Your task to perform on an android device: Open the calendar app, open the side menu, and click the "Day" option Image 0: 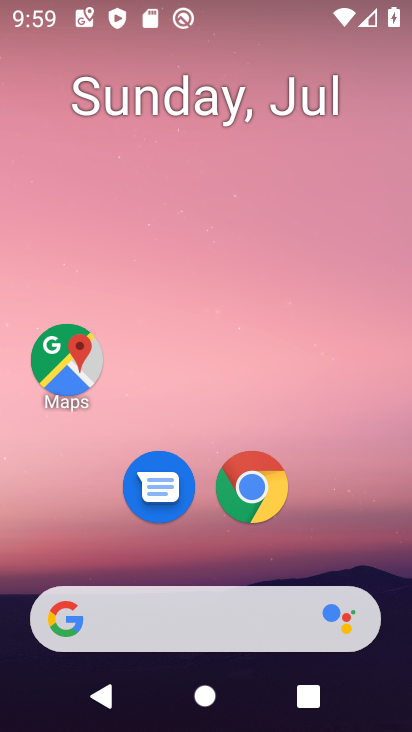
Step 0: drag from (162, 577) to (261, 4)
Your task to perform on an android device: Open the calendar app, open the side menu, and click the "Day" option Image 1: 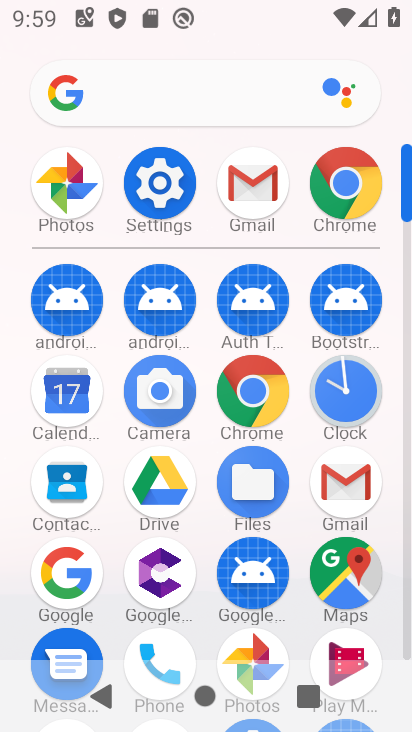
Step 1: click (77, 402)
Your task to perform on an android device: Open the calendar app, open the side menu, and click the "Day" option Image 2: 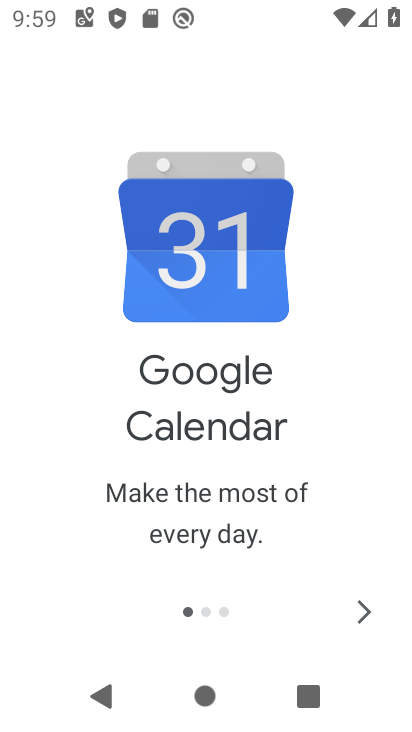
Step 2: click (364, 617)
Your task to perform on an android device: Open the calendar app, open the side menu, and click the "Day" option Image 3: 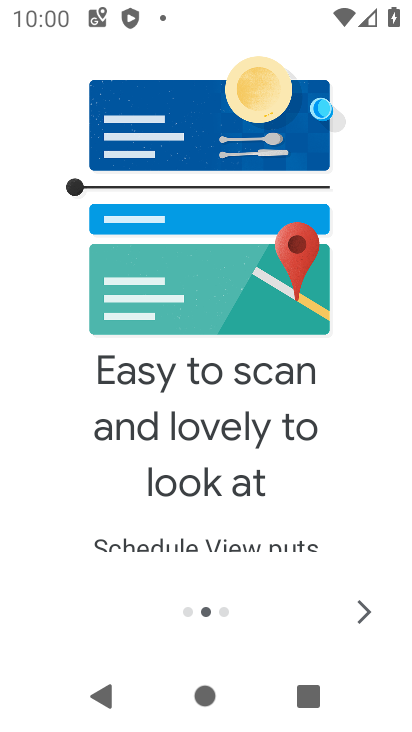
Step 3: click (376, 611)
Your task to perform on an android device: Open the calendar app, open the side menu, and click the "Day" option Image 4: 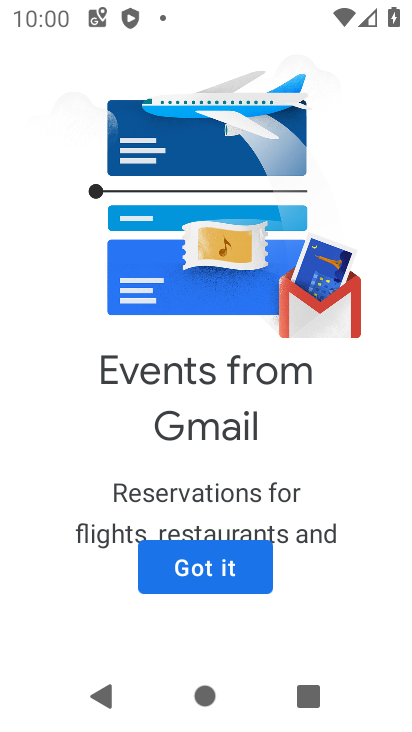
Step 4: click (203, 566)
Your task to perform on an android device: Open the calendar app, open the side menu, and click the "Day" option Image 5: 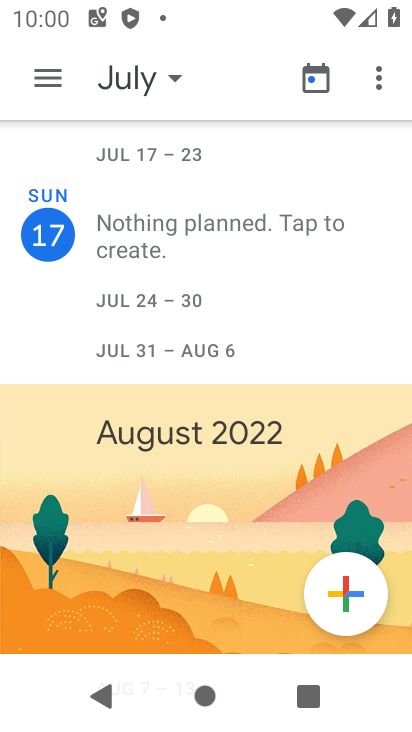
Step 5: click (49, 75)
Your task to perform on an android device: Open the calendar app, open the side menu, and click the "Day" option Image 6: 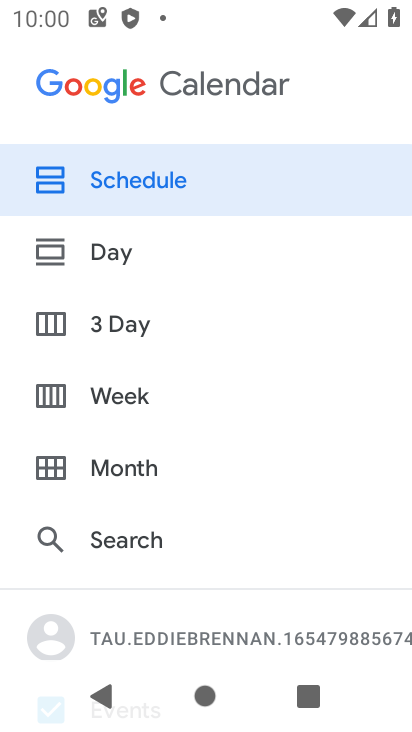
Step 6: click (108, 267)
Your task to perform on an android device: Open the calendar app, open the side menu, and click the "Day" option Image 7: 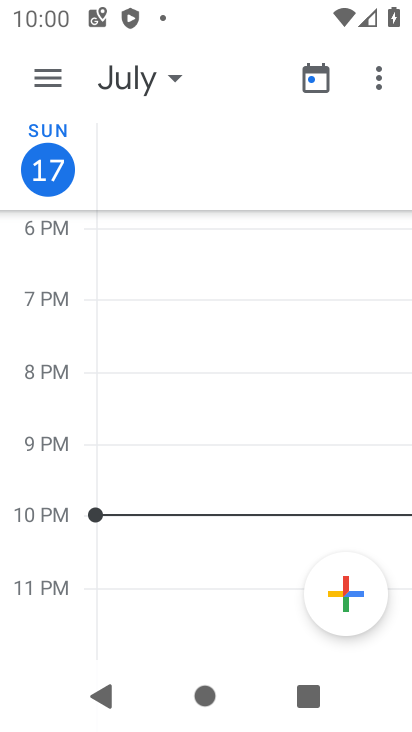
Step 7: task complete